Your task to perform on an android device: Go to battery settings Image 0: 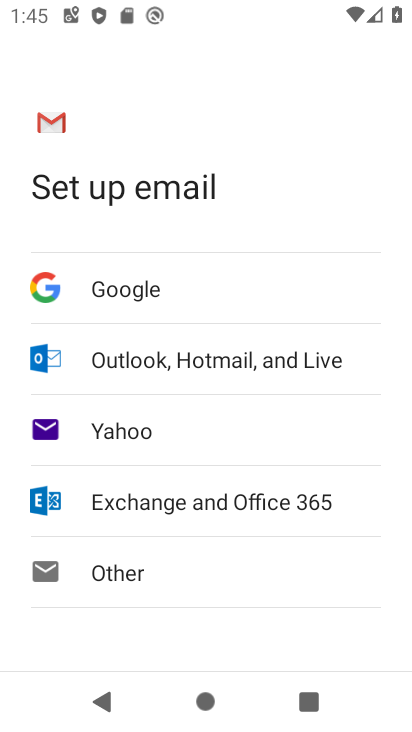
Step 0: press home button
Your task to perform on an android device: Go to battery settings Image 1: 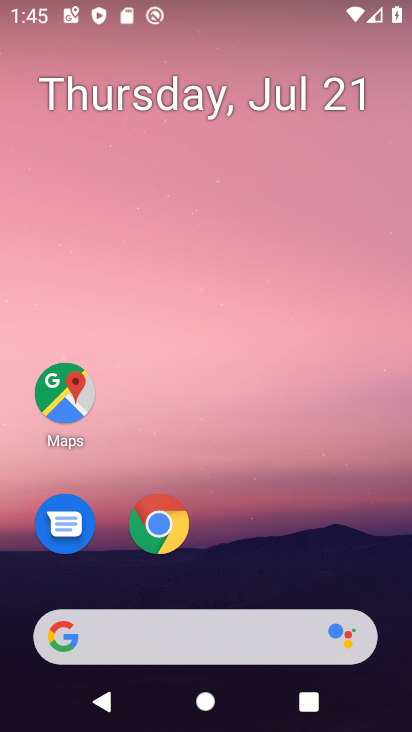
Step 1: drag from (287, 544) to (265, 19)
Your task to perform on an android device: Go to battery settings Image 2: 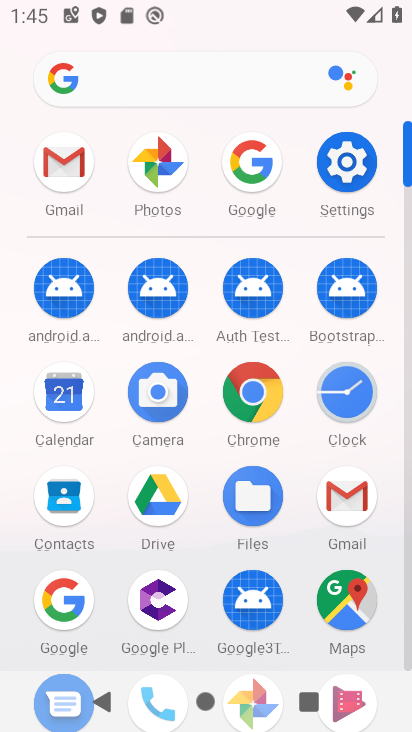
Step 2: click (350, 164)
Your task to perform on an android device: Go to battery settings Image 3: 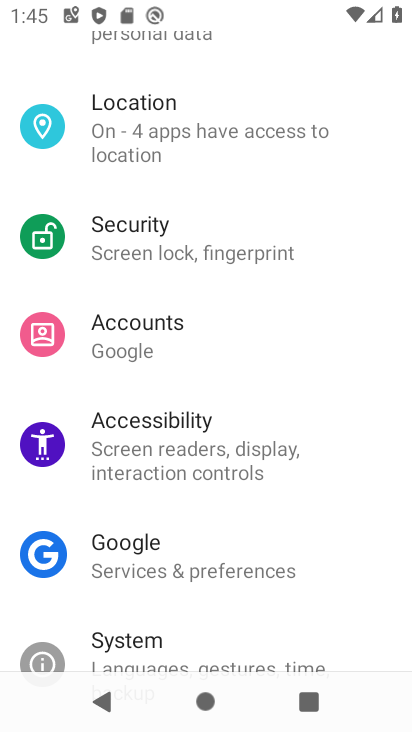
Step 3: drag from (216, 278) to (234, 613)
Your task to perform on an android device: Go to battery settings Image 4: 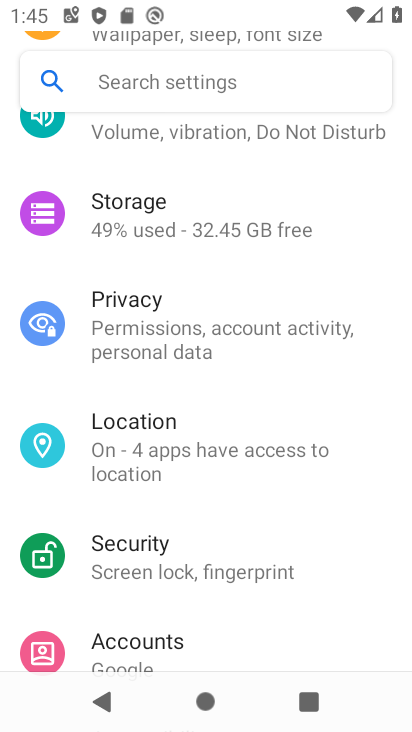
Step 4: drag from (226, 204) to (227, 601)
Your task to perform on an android device: Go to battery settings Image 5: 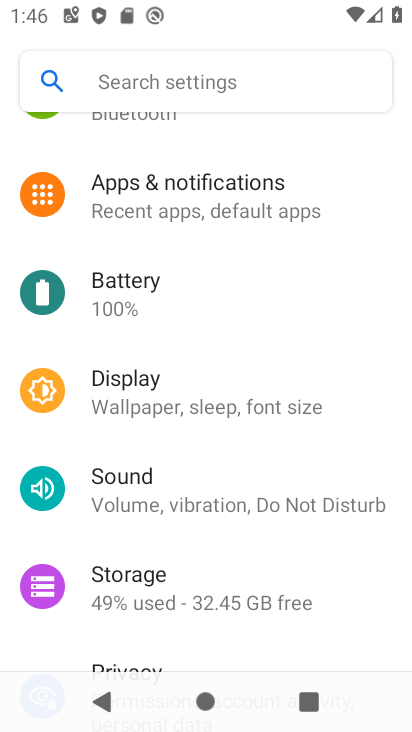
Step 5: click (154, 284)
Your task to perform on an android device: Go to battery settings Image 6: 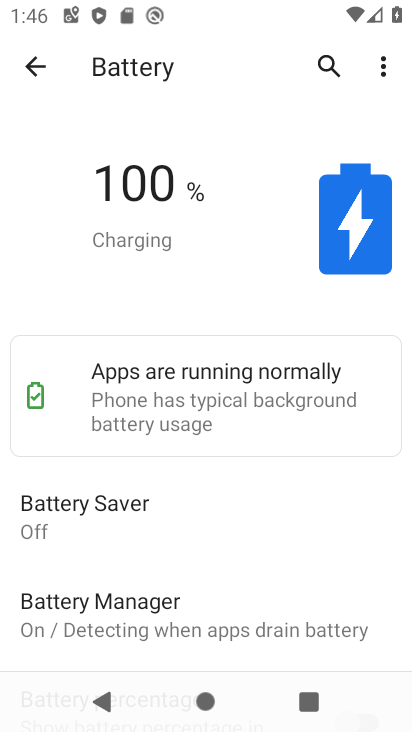
Step 6: task complete